Your task to perform on an android device: Show me productivity apps on the Play Store Image 0: 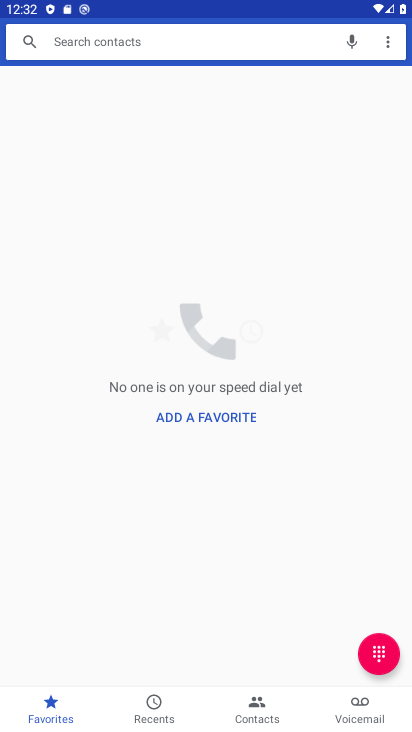
Step 0: press home button
Your task to perform on an android device: Show me productivity apps on the Play Store Image 1: 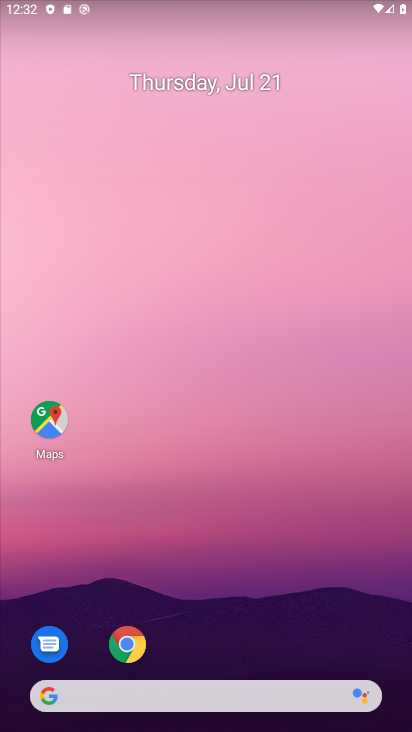
Step 1: drag from (233, 590) to (276, 77)
Your task to perform on an android device: Show me productivity apps on the Play Store Image 2: 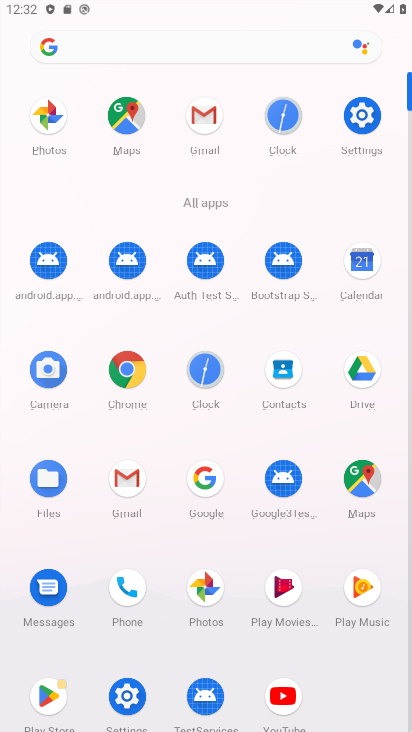
Step 2: click (46, 690)
Your task to perform on an android device: Show me productivity apps on the Play Store Image 3: 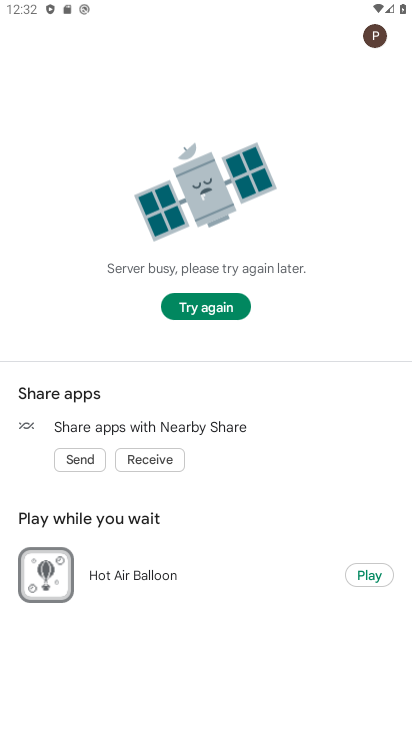
Step 3: task complete